Your task to perform on an android device: change notifications settings Image 0: 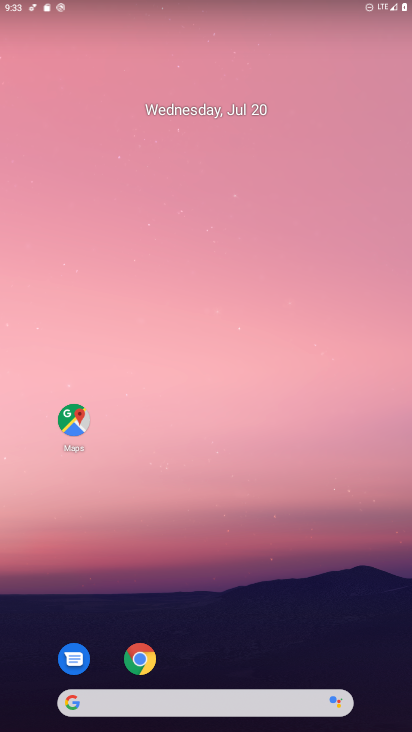
Step 0: drag from (257, 596) to (179, 65)
Your task to perform on an android device: change notifications settings Image 1: 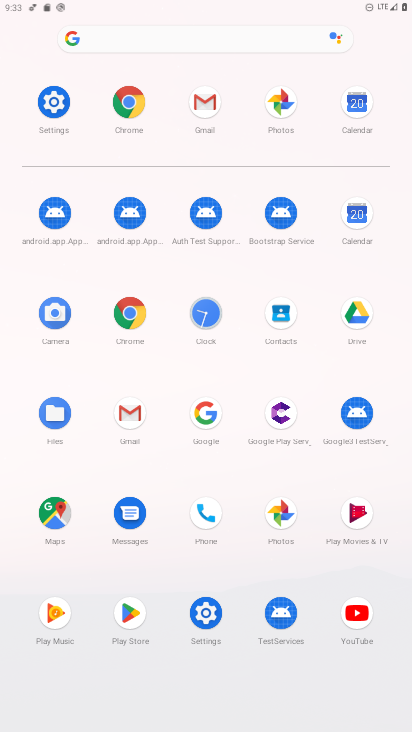
Step 1: click (51, 98)
Your task to perform on an android device: change notifications settings Image 2: 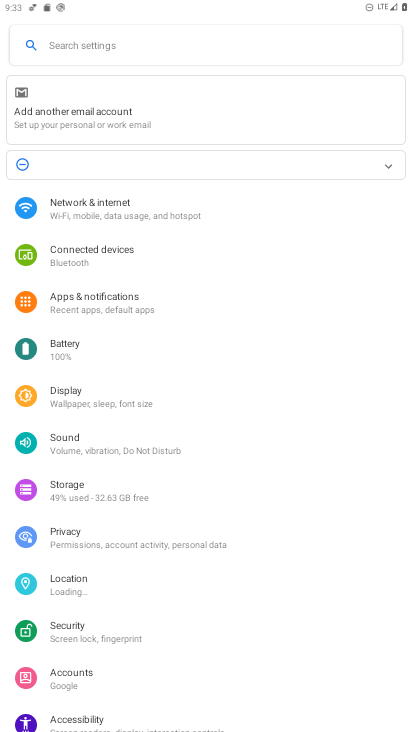
Step 2: click (123, 309)
Your task to perform on an android device: change notifications settings Image 3: 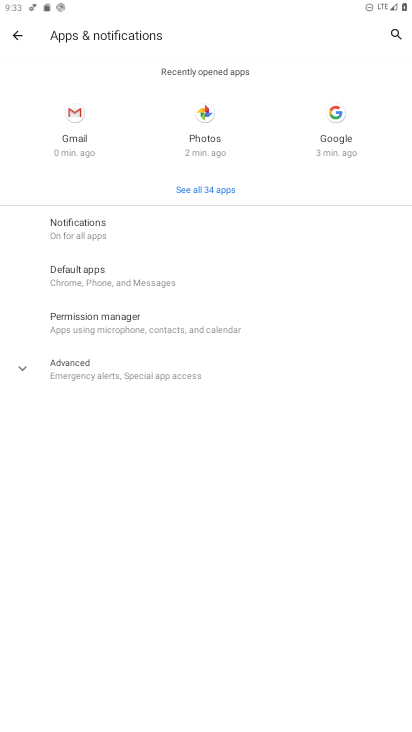
Step 3: click (93, 232)
Your task to perform on an android device: change notifications settings Image 4: 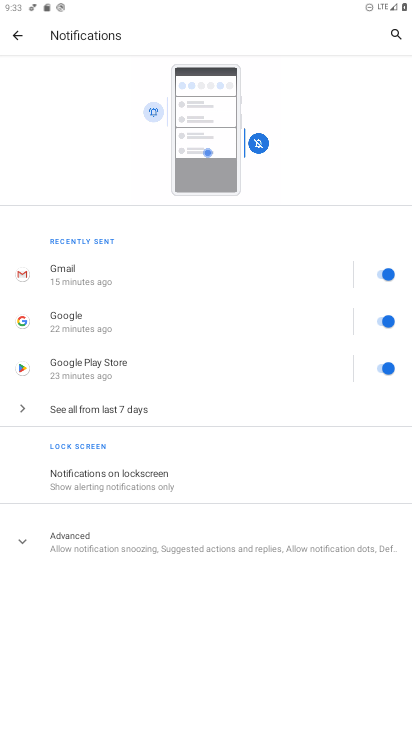
Step 4: task complete